Your task to perform on an android device: Open ESPN.com Image 0: 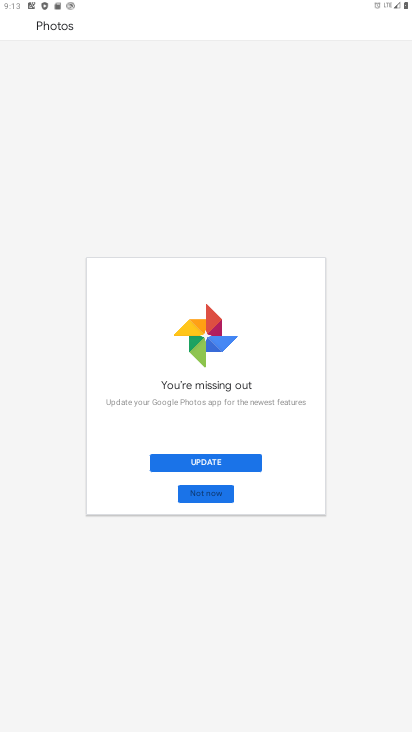
Step 0: press home button
Your task to perform on an android device: Open ESPN.com Image 1: 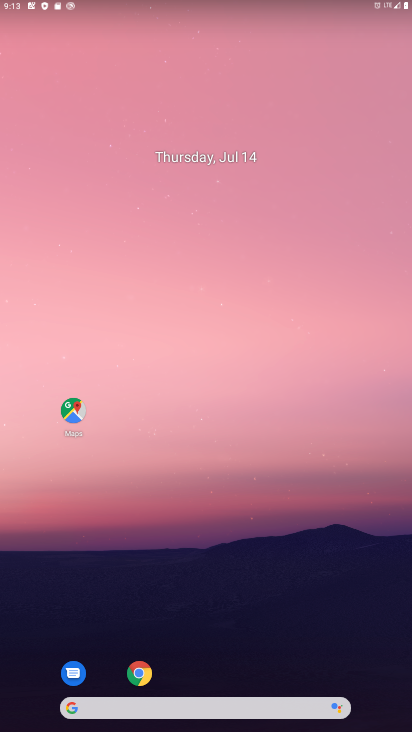
Step 1: click (139, 673)
Your task to perform on an android device: Open ESPN.com Image 2: 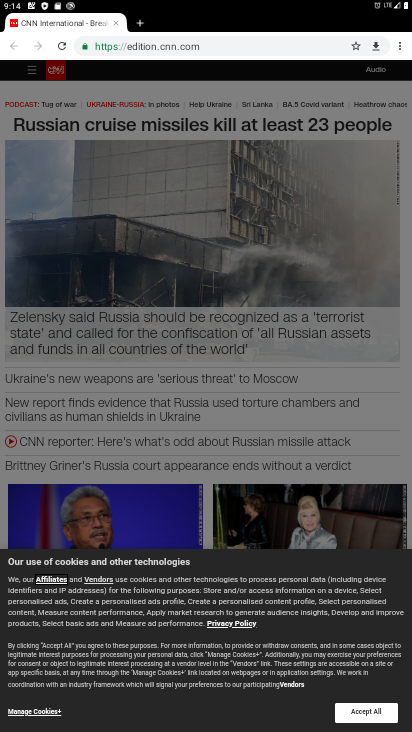
Step 2: click (243, 47)
Your task to perform on an android device: Open ESPN.com Image 3: 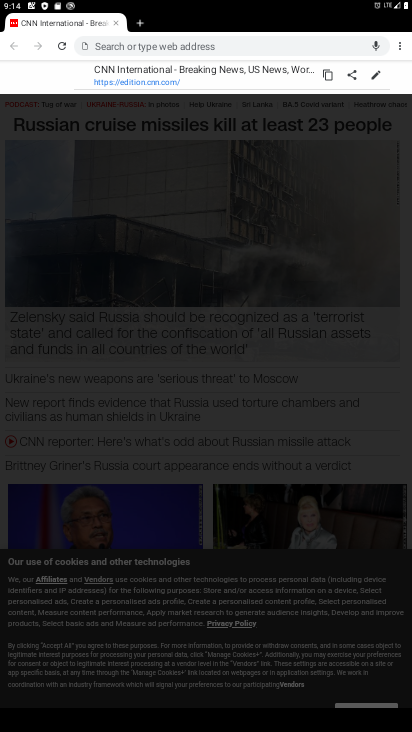
Step 3: type "ESPN.com"
Your task to perform on an android device: Open ESPN.com Image 4: 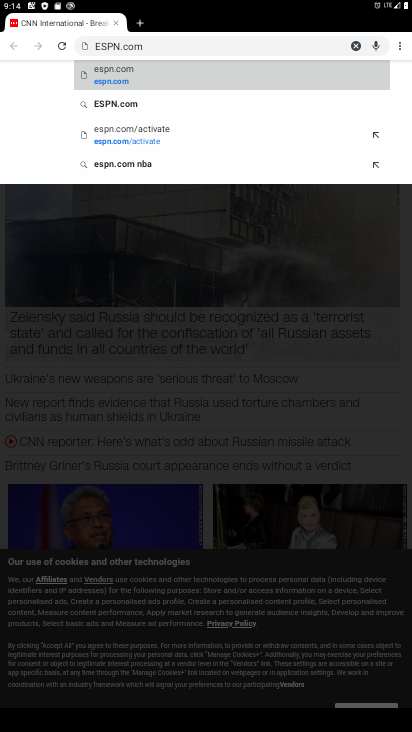
Step 4: click (139, 102)
Your task to perform on an android device: Open ESPN.com Image 5: 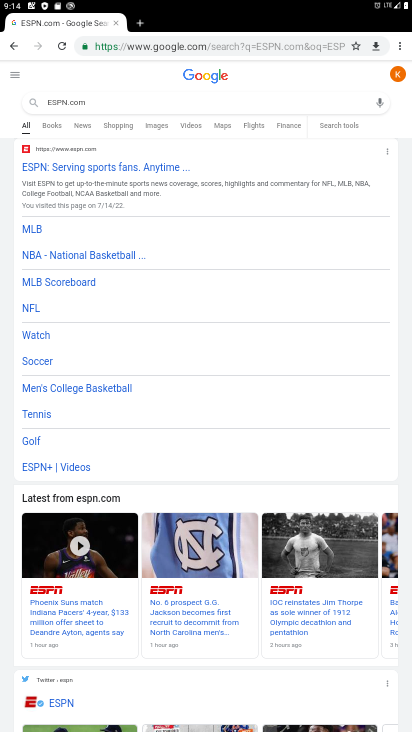
Step 5: click (125, 179)
Your task to perform on an android device: Open ESPN.com Image 6: 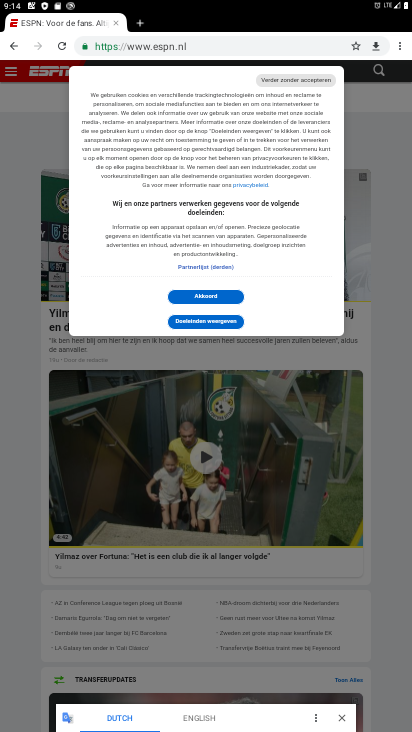
Step 6: click (218, 298)
Your task to perform on an android device: Open ESPN.com Image 7: 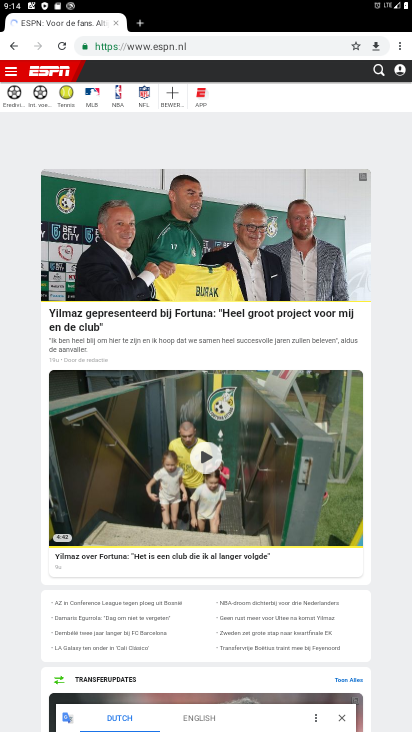
Step 7: task complete